Your task to perform on an android device: What is the news today? Image 0: 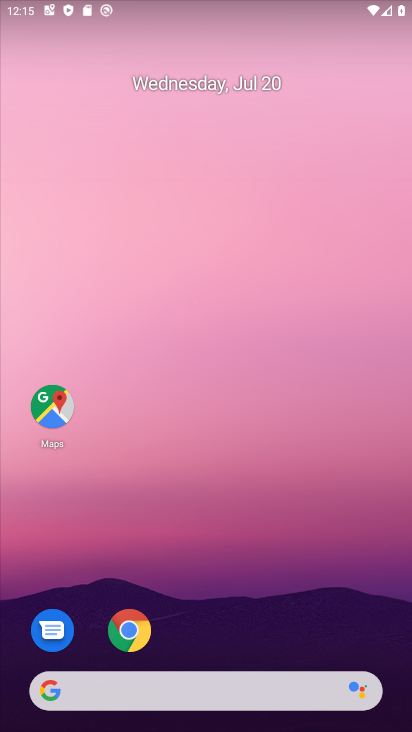
Step 0: click (49, 695)
Your task to perform on an android device: What is the news today? Image 1: 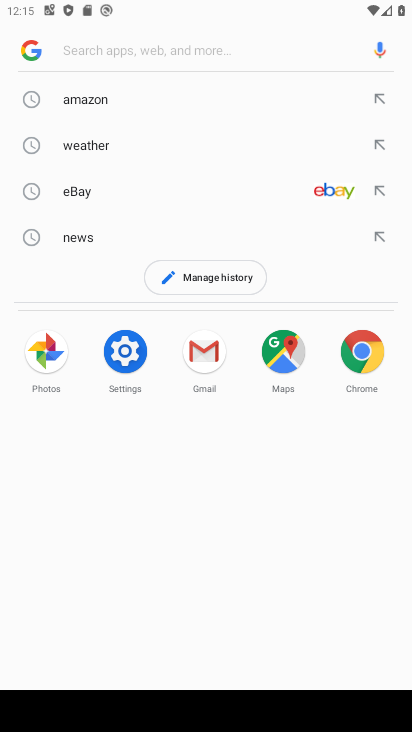
Step 1: type "news today"
Your task to perform on an android device: What is the news today? Image 2: 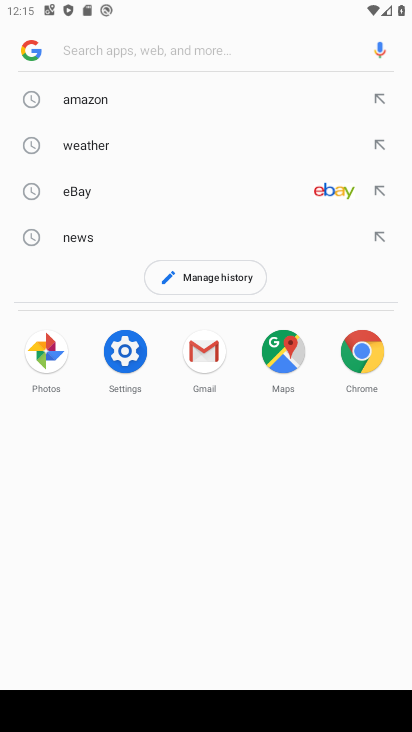
Step 2: click (105, 45)
Your task to perform on an android device: What is the news today? Image 3: 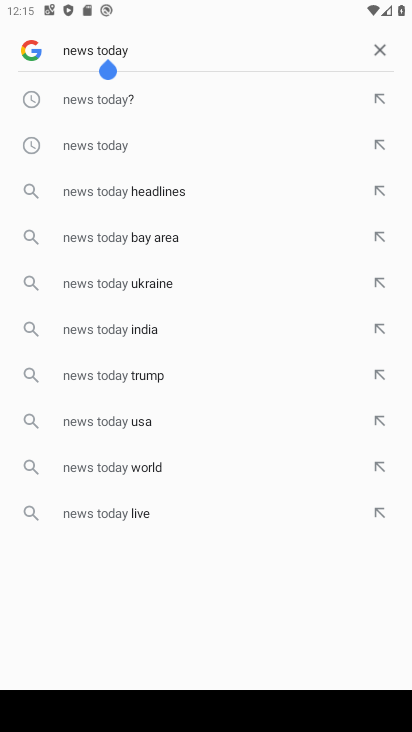
Step 3: press enter
Your task to perform on an android device: What is the news today? Image 4: 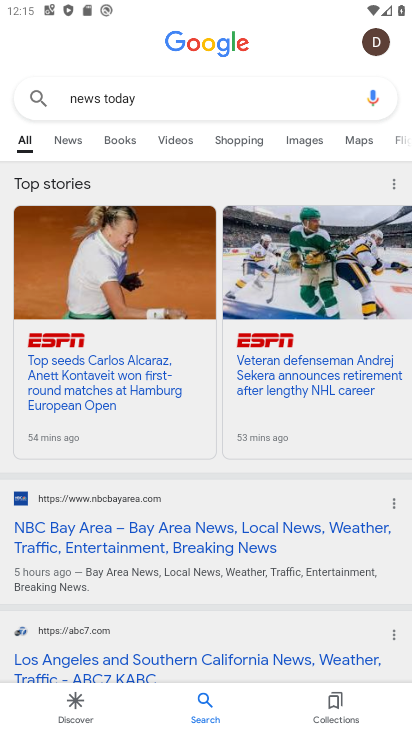
Step 4: task complete